Your task to perform on an android device: Go to location settings Image 0: 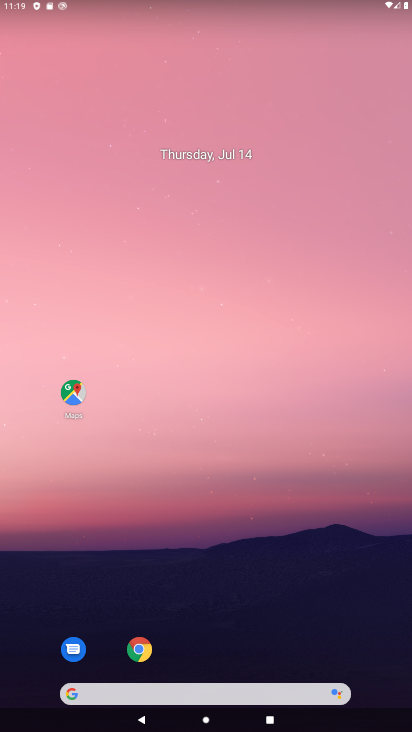
Step 0: drag from (189, 584) to (155, 196)
Your task to perform on an android device: Go to location settings Image 1: 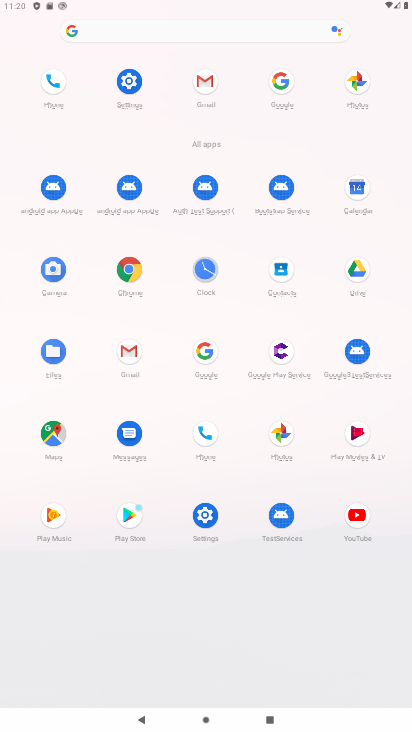
Step 1: click (129, 90)
Your task to perform on an android device: Go to location settings Image 2: 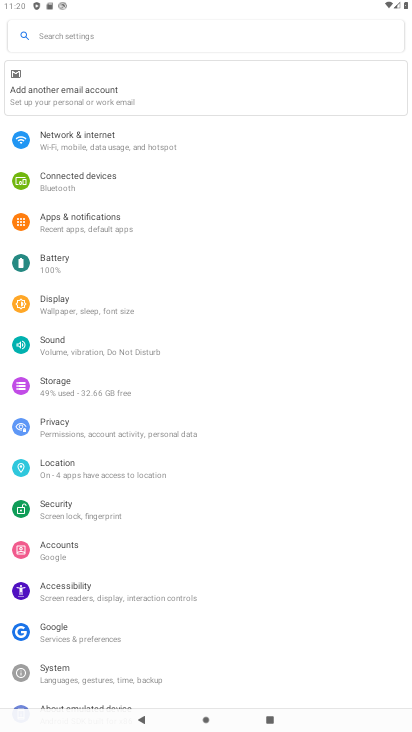
Step 2: click (81, 473)
Your task to perform on an android device: Go to location settings Image 3: 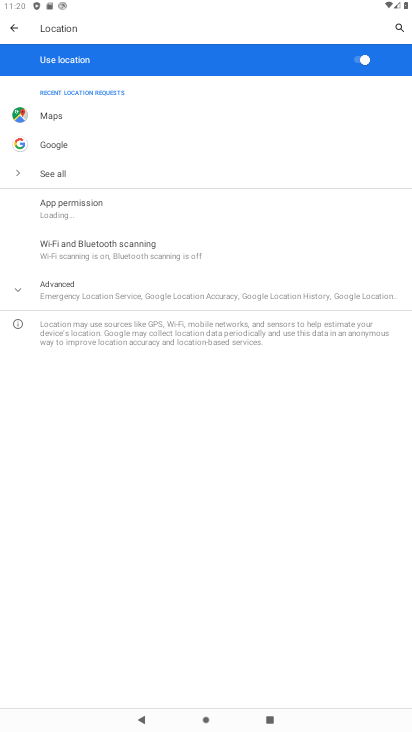
Step 3: task complete